Your task to perform on an android device: Search for the best rated headphones on Walmart Image 0: 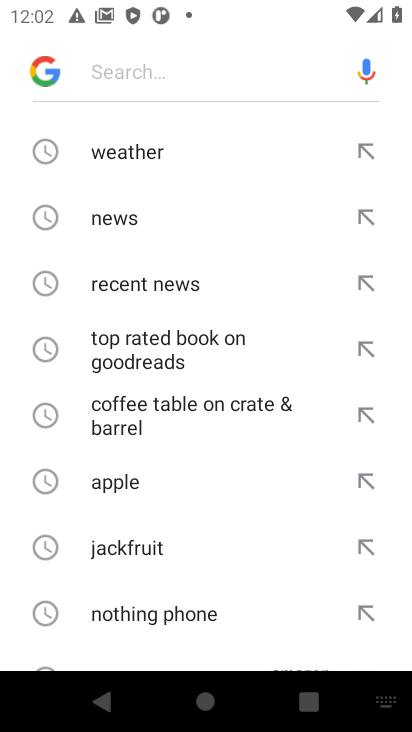
Step 0: press home button
Your task to perform on an android device: Search for the best rated headphones on Walmart Image 1: 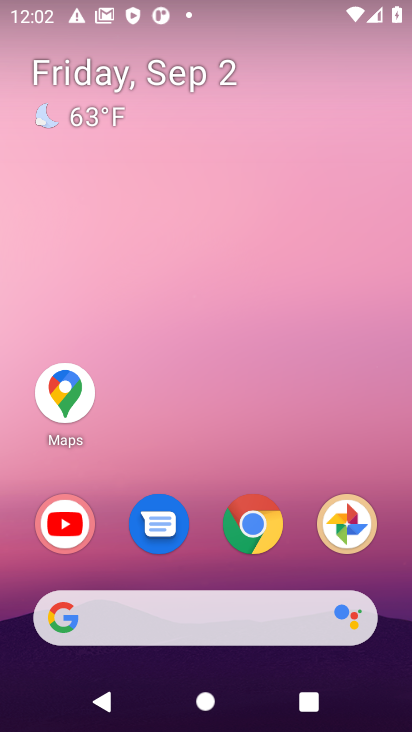
Step 1: click (247, 534)
Your task to perform on an android device: Search for the best rated headphones on Walmart Image 2: 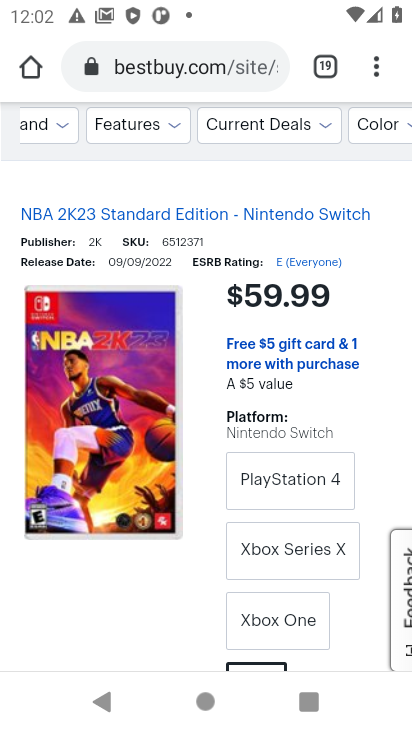
Step 2: click (329, 64)
Your task to perform on an android device: Search for the best rated headphones on Walmart Image 3: 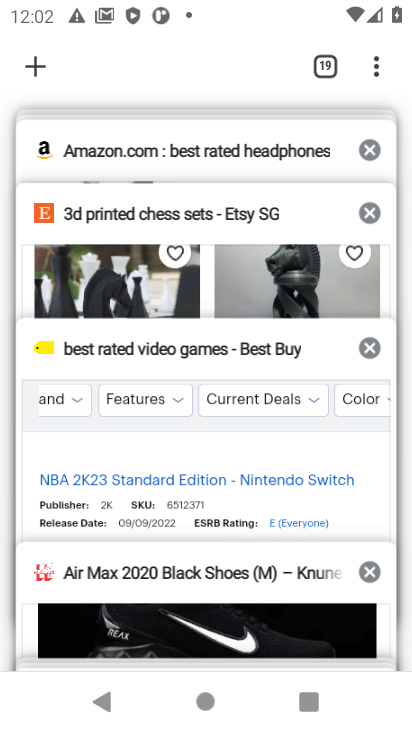
Step 3: drag from (173, 592) to (144, 140)
Your task to perform on an android device: Search for the best rated headphones on Walmart Image 4: 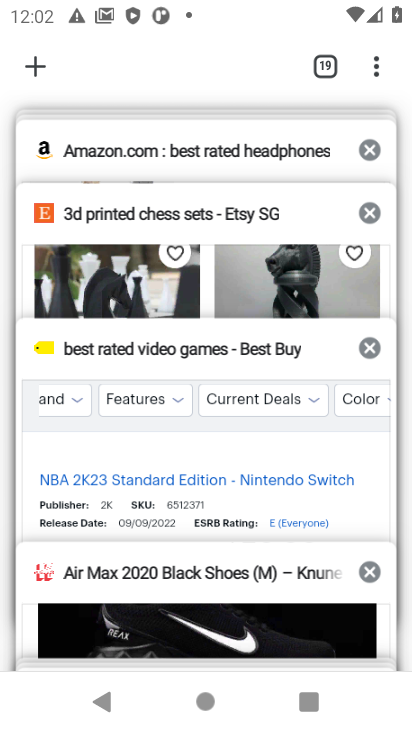
Step 4: drag from (95, 470) to (105, 131)
Your task to perform on an android device: Search for the best rated headphones on Walmart Image 5: 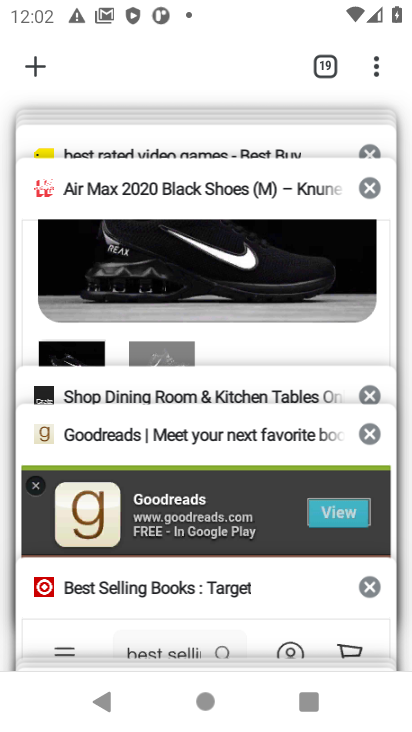
Step 5: drag from (119, 584) to (137, 114)
Your task to perform on an android device: Search for the best rated headphones on Walmart Image 6: 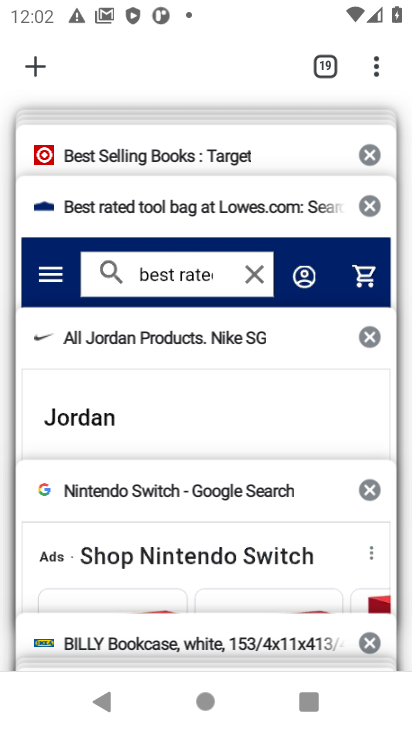
Step 6: drag from (112, 640) to (128, 200)
Your task to perform on an android device: Search for the best rated headphones on Walmart Image 7: 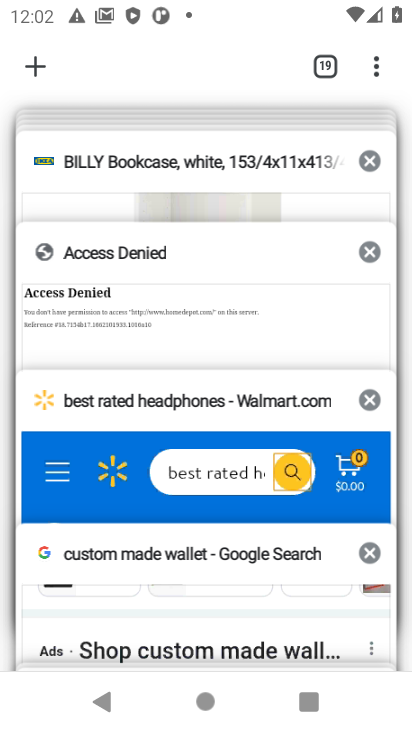
Step 7: click (155, 414)
Your task to perform on an android device: Search for the best rated headphones on Walmart Image 8: 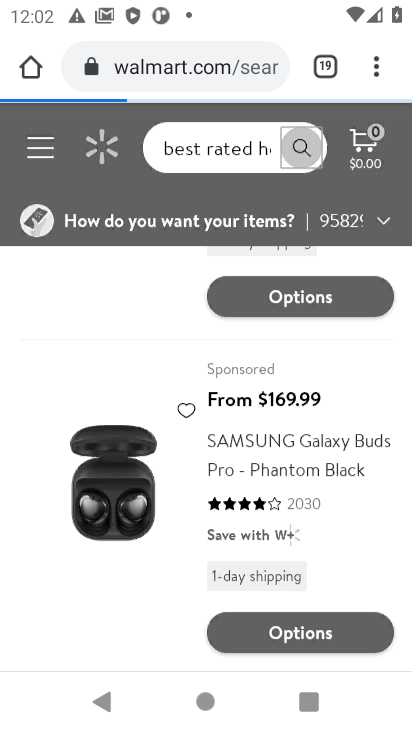
Step 8: task complete